Your task to perform on an android device: open app "Speedtest by Ookla" (install if not already installed) Image 0: 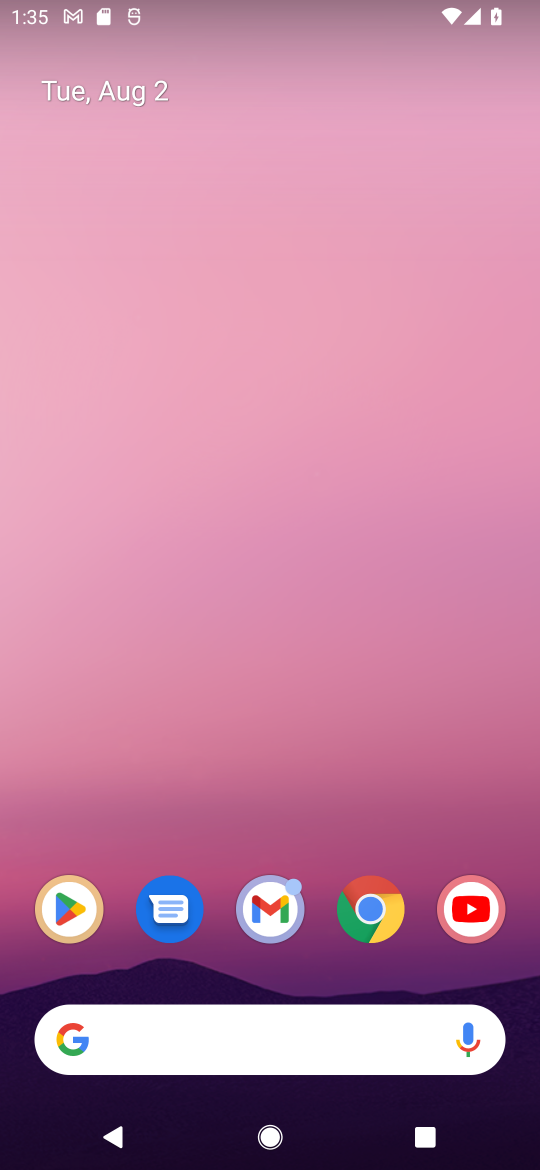
Step 0: click (66, 898)
Your task to perform on an android device: open app "Speedtest by Ookla" (install if not already installed) Image 1: 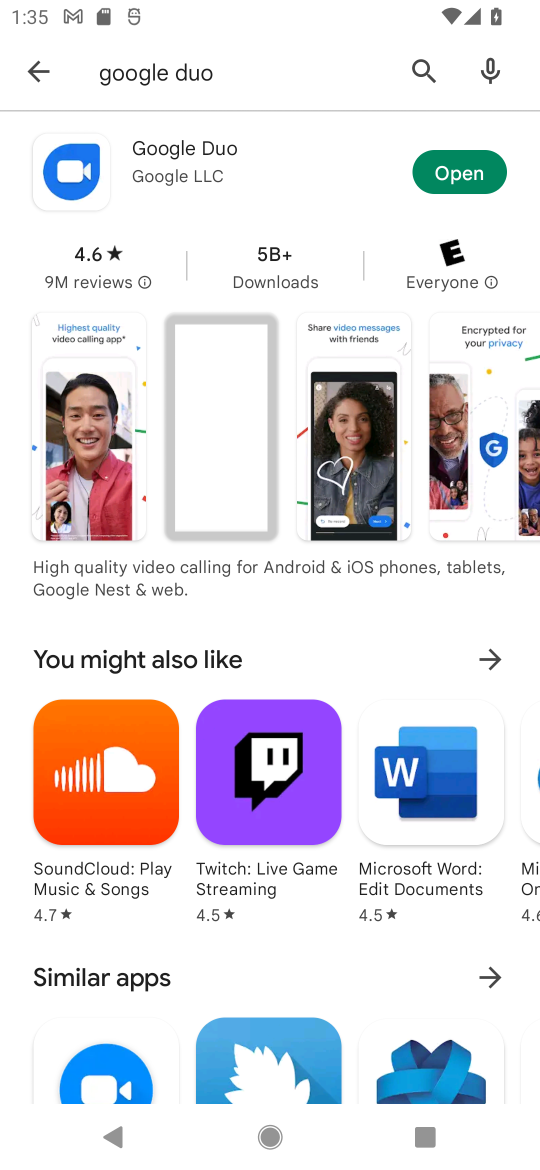
Step 1: click (418, 71)
Your task to perform on an android device: open app "Speedtest by Ookla" (install if not already installed) Image 2: 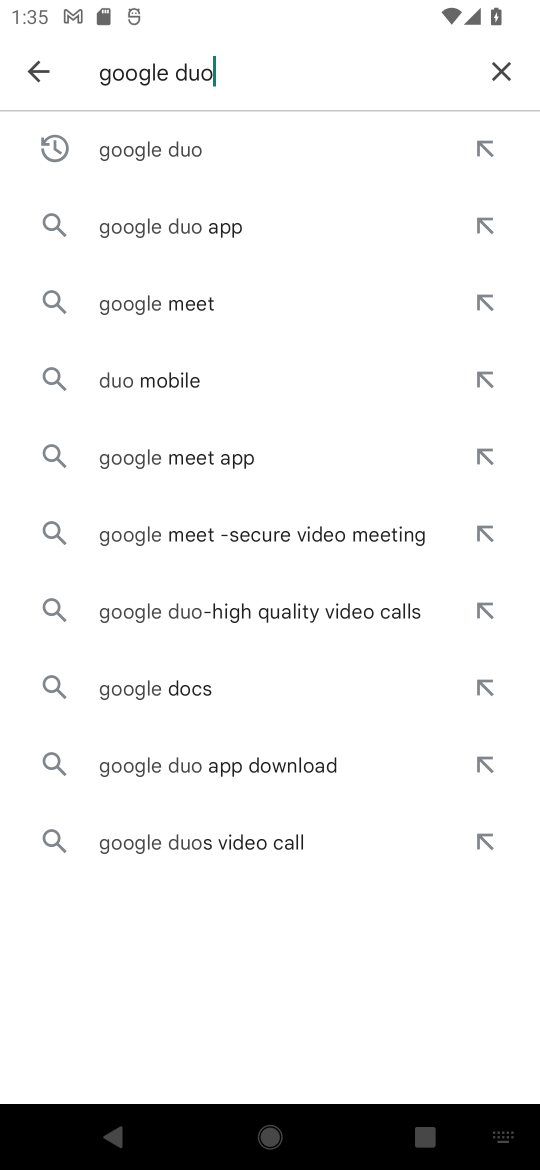
Step 2: click (509, 73)
Your task to perform on an android device: open app "Speedtest by Ookla" (install if not already installed) Image 3: 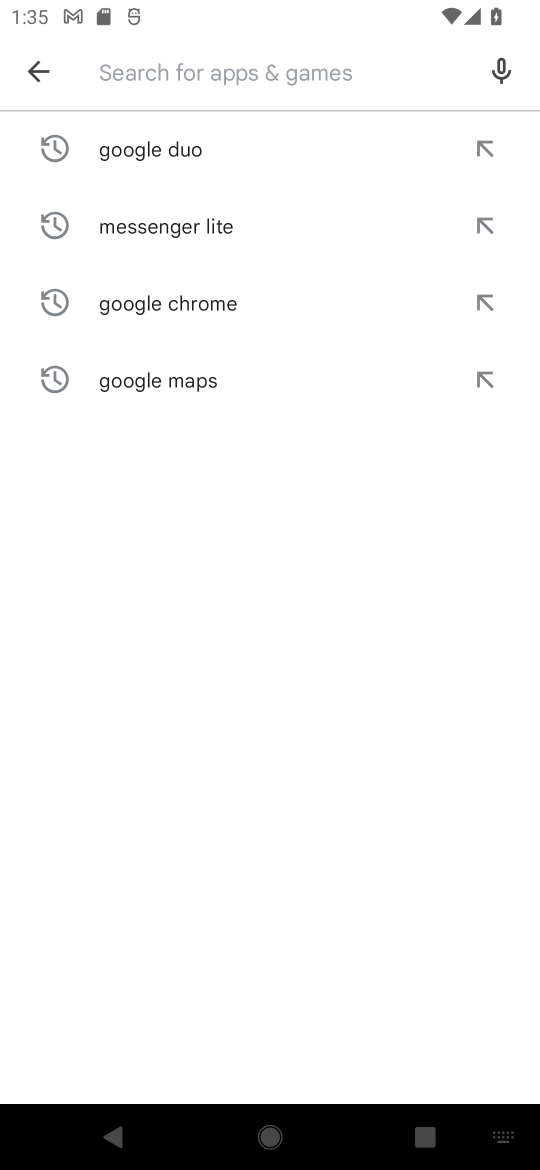
Step 3: type "Speedtest by Ookla"
Your task to perform on an android device: open app "Speedtest by Ookla" (install if not already installed) Image 4: 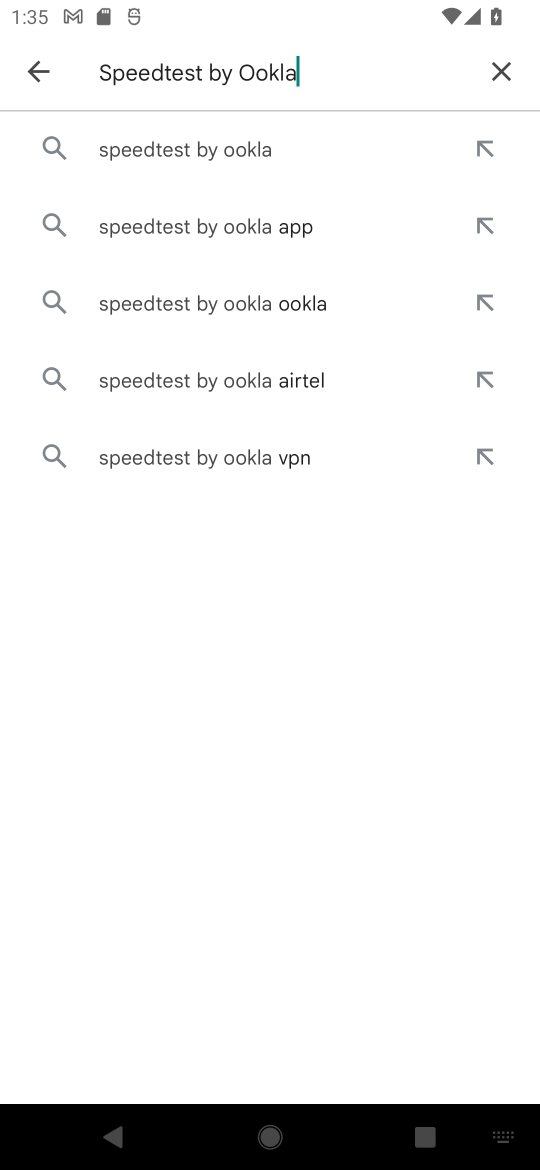
Step 4: click (152, 155)
Your task to perform on an android device: open app "Speedtest by Ookla" (install if not already installed) Image 5: 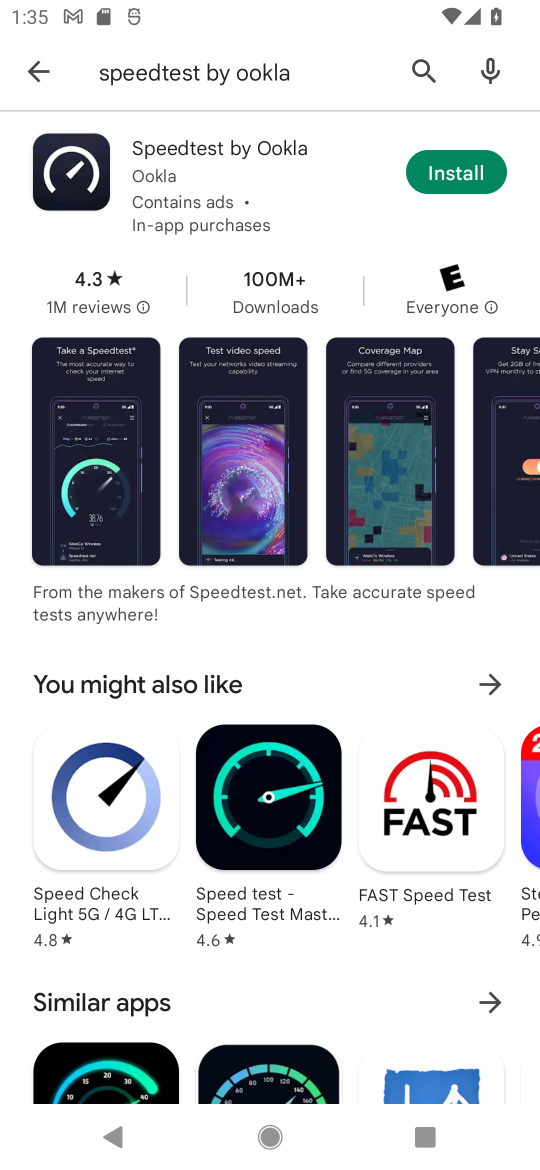
Step 5: click (466, 154)
Your task to perform on an android device: open app "Speedtest by Ookla" (install if not already installed) Image 6: 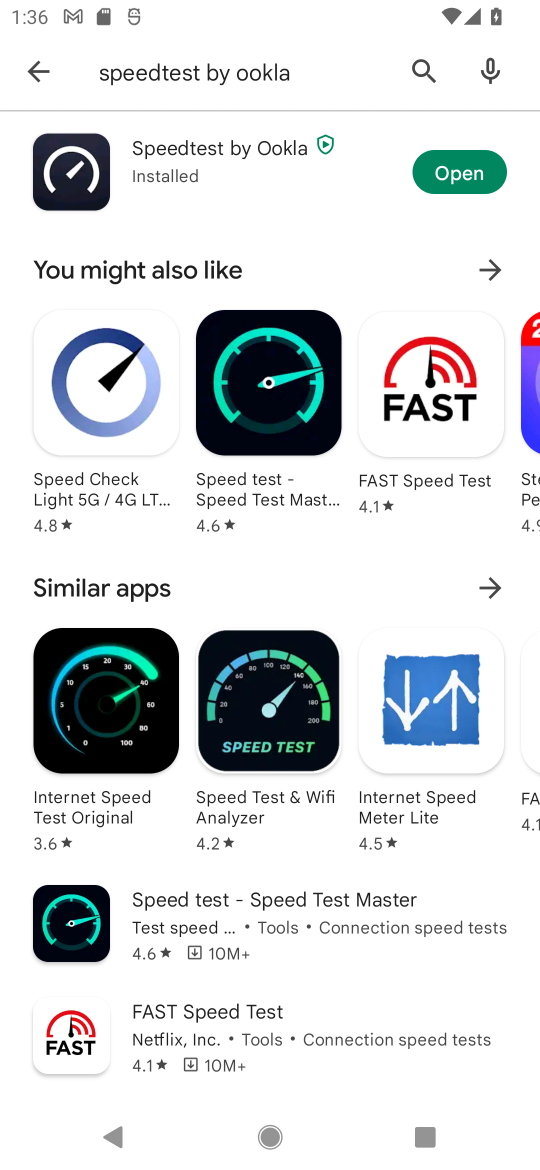
Step 6: click (469, 153)
Your task to perform on an android device: open app "Speedtest by Ookla" (install if not already installed) Image 7: 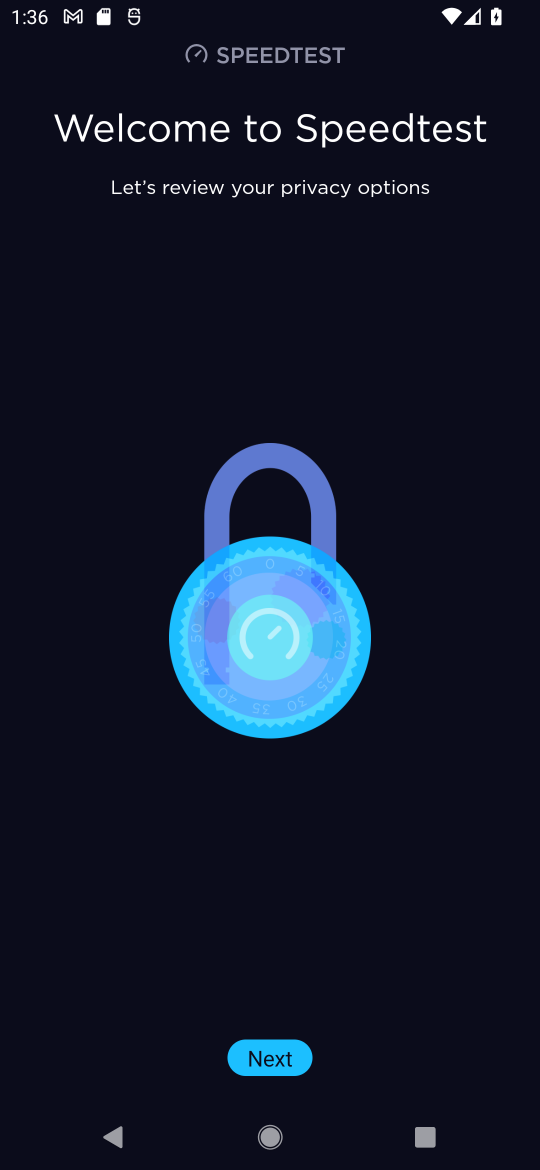
Step 7: task complete